Your task to perform on an android device: turn pop-ups on in chrome Image 0: 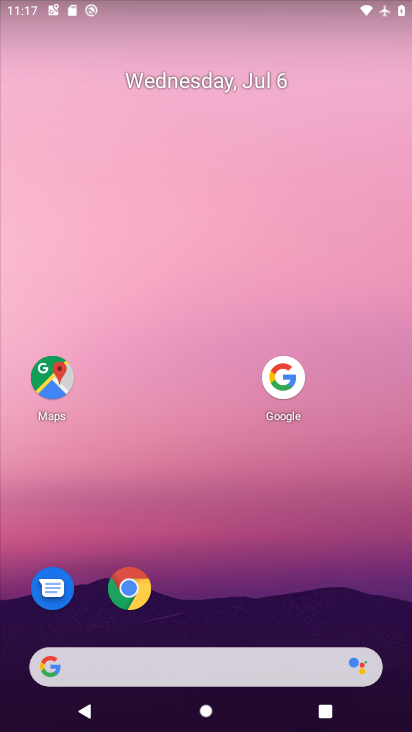
Step 0: click (128, 583)
Your task to perform on an android device: turn pop-ups on in chrome Image 1: 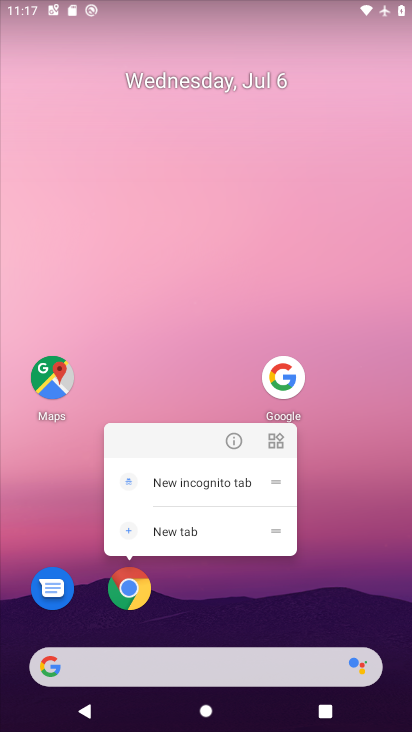
Step 1: click (128, 583)
Your task to perform on an android device: turn pop-ups on in chrome Image 2: 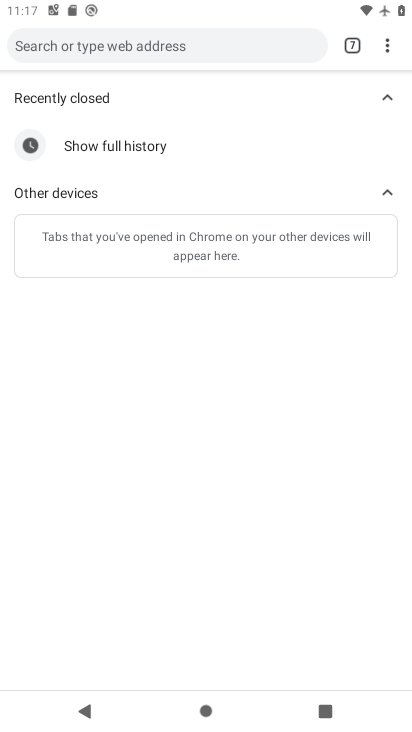
Step 2: click (387, 55)
Your task to perform on an android device: turn pop-ups on in chrome Image 3: 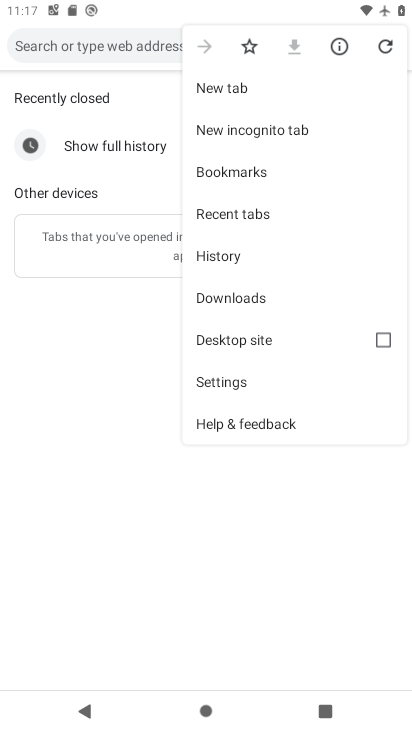
Step 3: click (229, 380)
Your task to perform on an android device: turn pop-ups on in chrome Image 4: 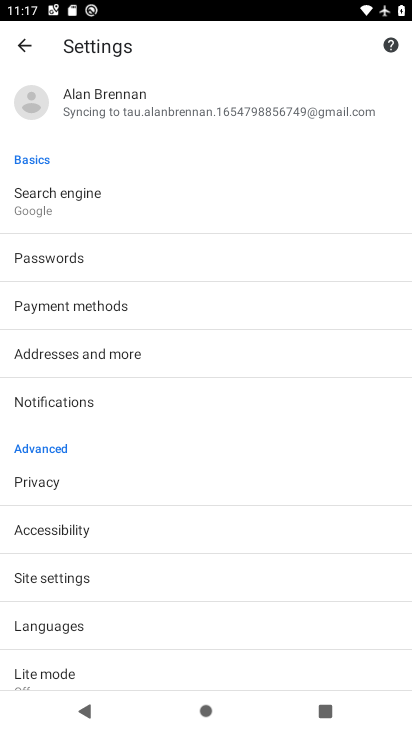
Step 4: click (55, 577)
Your task to perform on an android device: turn pop-ups on in chrome Image 5: 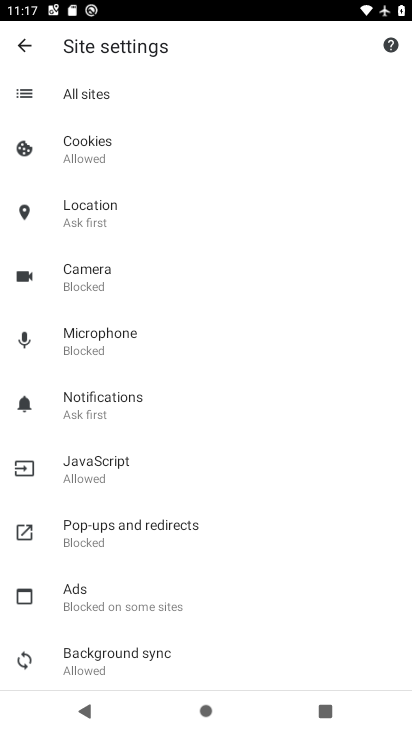
Step 5: click (159, 516)
Your task to perform on an android device: turn pop-ups on in chrome Image 6: 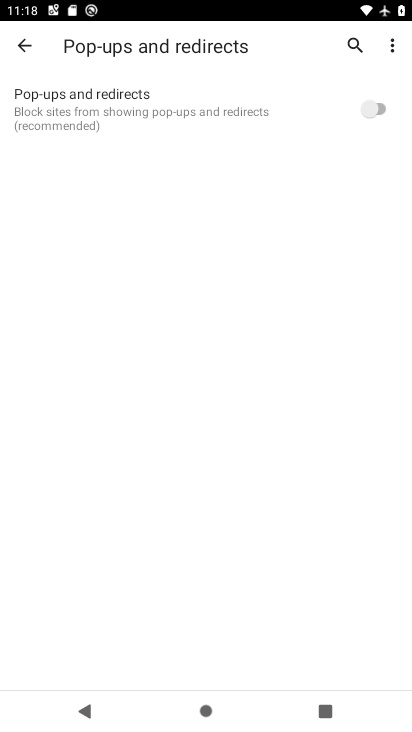
Step 6: click (381, 102)
Your task to perform on an android device: turn pop-ups on in chrome Image 7: 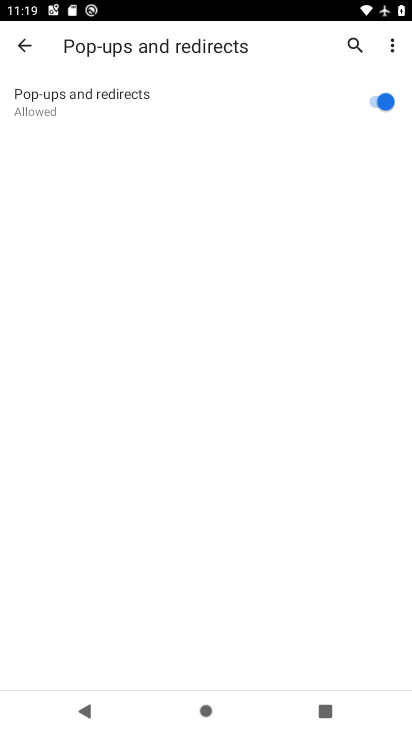
Step 7: task complete